Your task to perform on an android device: Show me productivity apps on the Play Store Image 0: 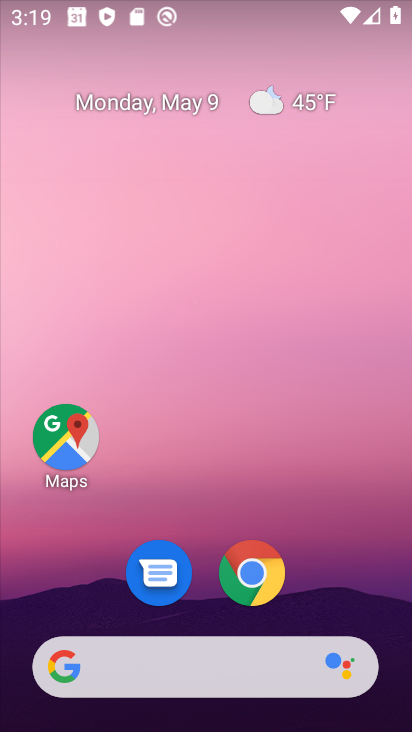
Step 0: drag from (377, 577) to (410, 264)
Your task to perform on an android device: Show me productivity apps on the Play Store Image 1: 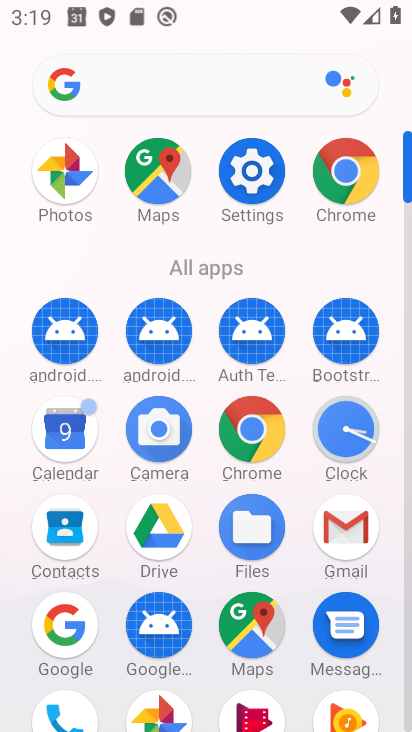
Step 1: drag from (209, 661) to (302, 248)
Your task to perform on an android device: Show me productivity apps on the Play Store Image 2: 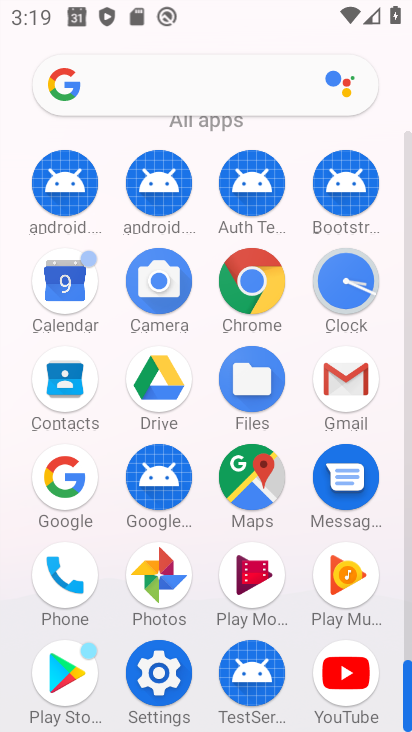
Step 2: click (53, 661)
Your task to perform on an android device: Show me productivity apps on the Play Store Image 3: 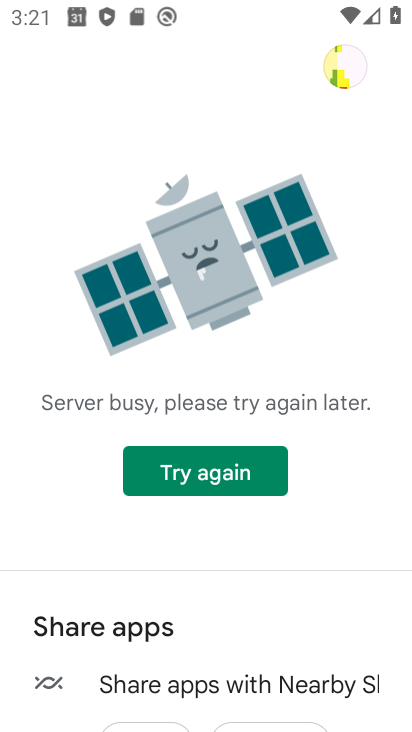
Step 3: task complete